Your task to perform on an android device: toggle notifications settings in the gmail app Image 0: 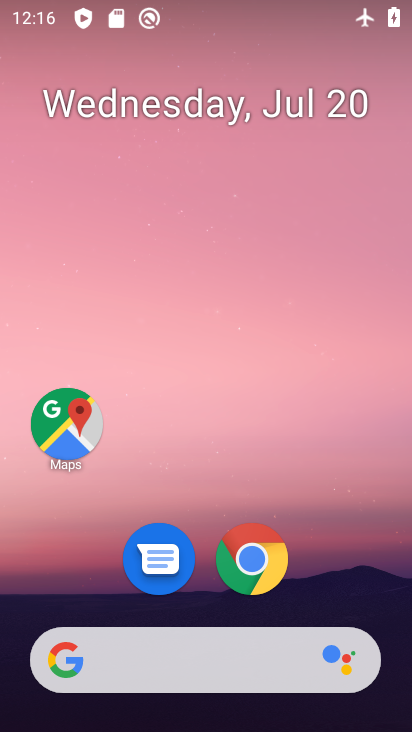
Step 0: drag from (356, 583) to (355, 158)
Your task to perform on an android device: toggle notifications settings in the gmail app Image 1: 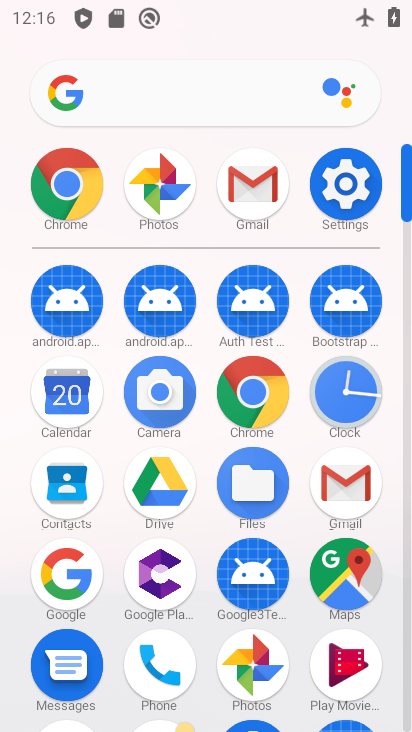
Step 1: click (360, 487)
Your task to perform on an android device: toggle notifications settings in the gmail app Image 2: 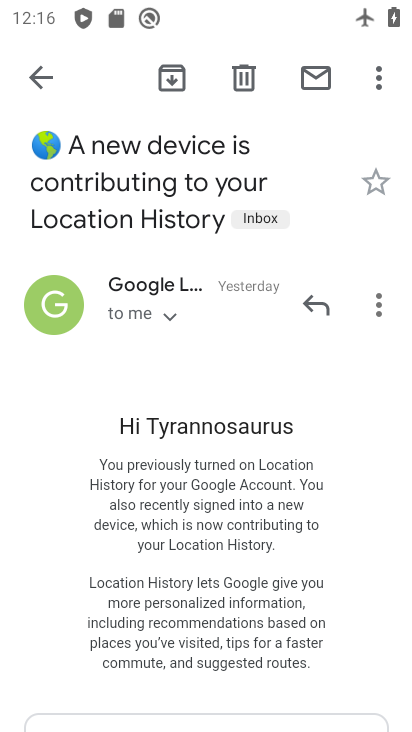
Step 2: press back button
Your task to perform on an android device: toggle notifications settings in the gmail app Image 3: 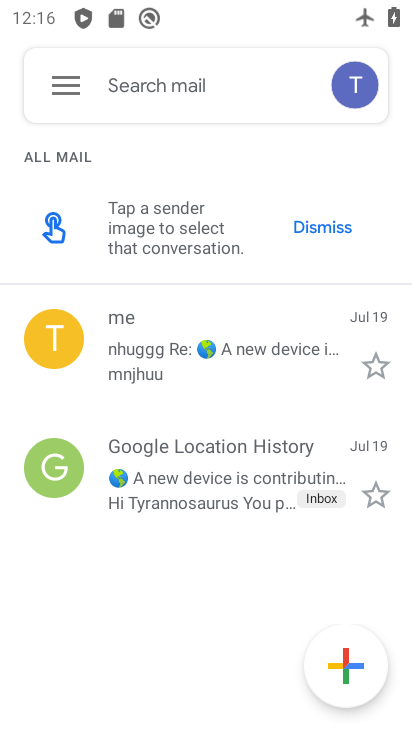
Step 3: click (74, 87)
Your task to perform on an android device: toggle notifications settings in the gmail app Image 4: 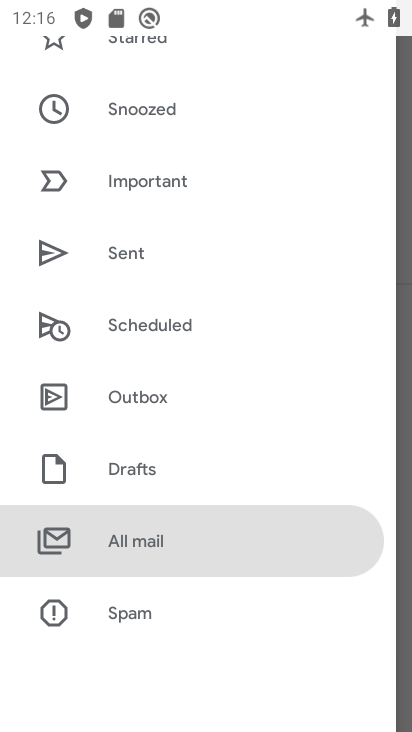
Step 4: drag from (317, 248) to (322, 340)
Your task to perform on an android device: toggle notifications settings in the gmail app Image 5: 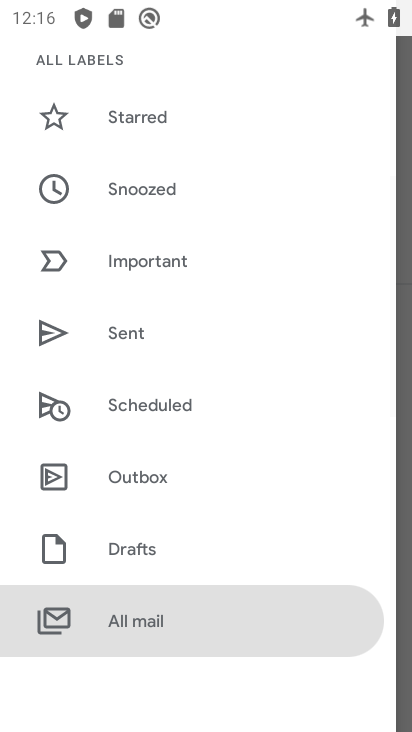
Step 5: drag from (323, 237) to (331, 375)
Your task to perform on an android device: toggle notifications settings in the gmail app Image 6: 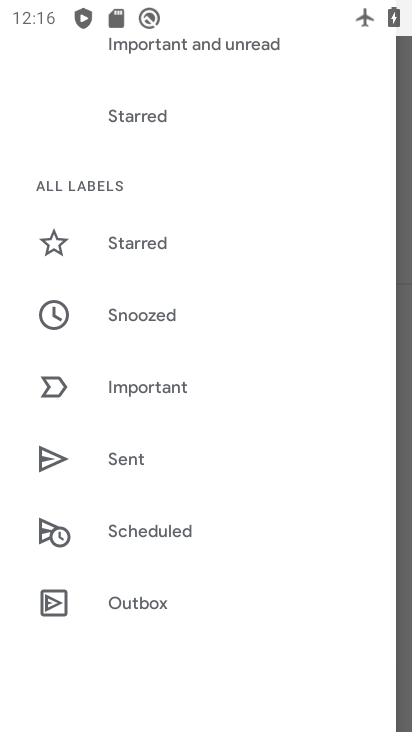
Step 6: drag from (319, 261) to (317, 409)
Your task to perform on an android device: toggle notifications settings in the gmail app Image 7: 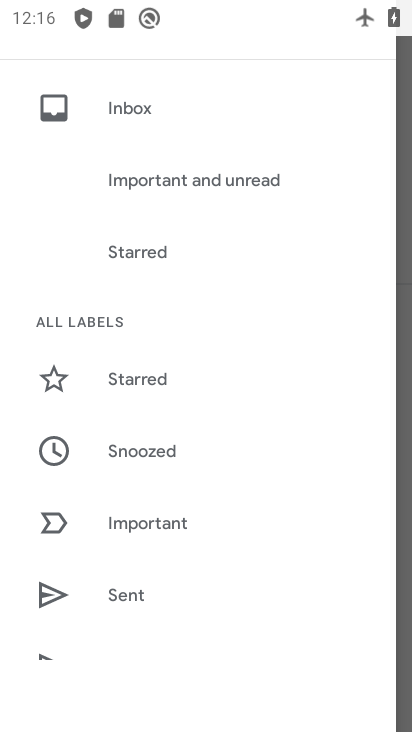
Step 7: drag from (306, 286) to (309, 385)
Your task to perform on an android device: toggle notifications settings in the gmail app Image 8: 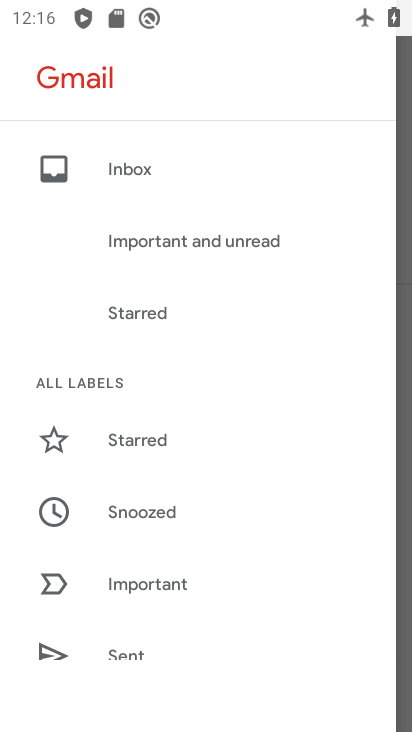
Step 8: drag from (313, 527) to (329, 424)
Your task to perform on an android device: toggle notifications settings in the gmail app Image 9: 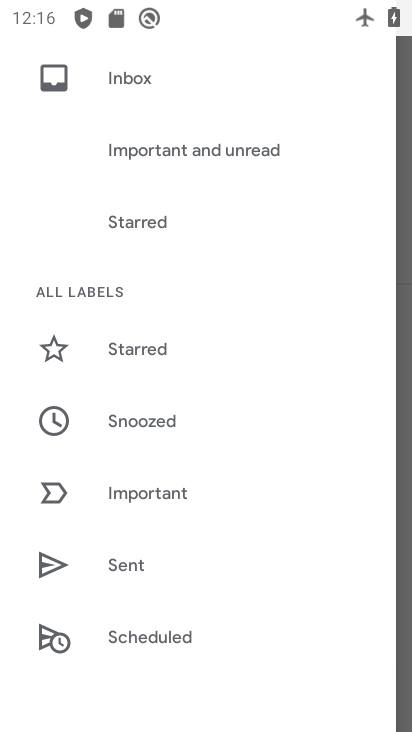
Step 9: drag from (312, 559) to (332, 414)
Your task to perform on an android device: toggle notifications settings in the gmail app Image 10: 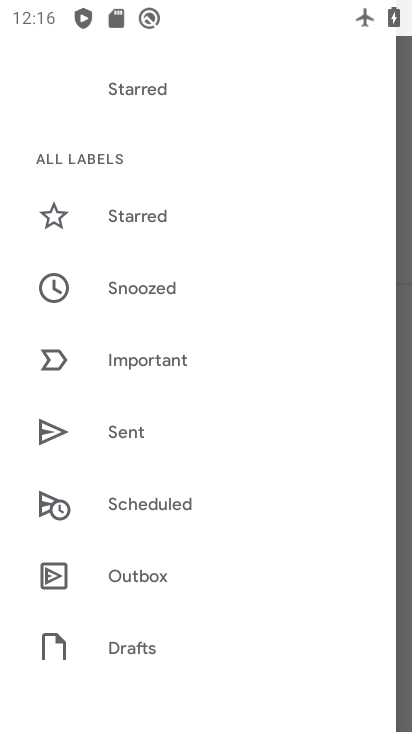
Step 10: drag from (312, 559) to (337, 376)
Your task to perform on an android device: toggle notifications settings in the gmail app Image 11: 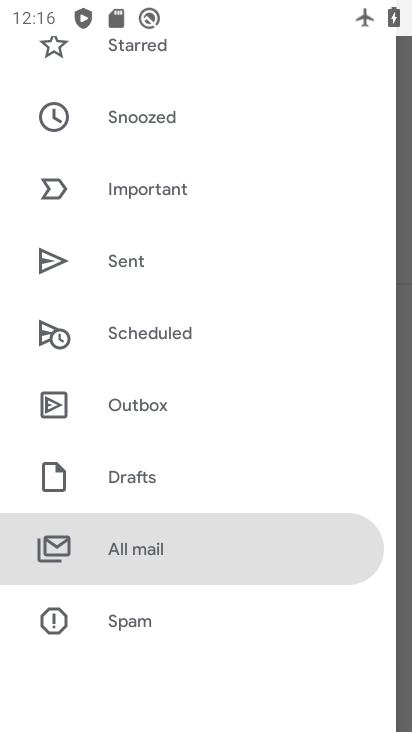
Step 11: drag from (309, 612) to (318, 422)
Your task to perform on an android device: toggle notifications settings in the gmail app Image 12: 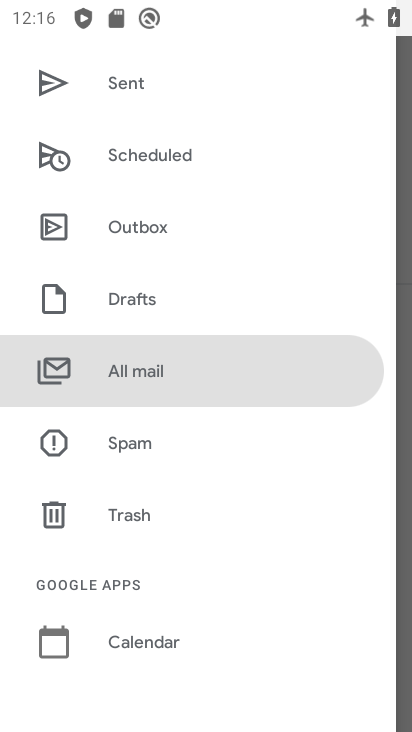
Step 12: drag from (296, 579) to (300, 447)
Your task to perform on an android device: toggle notifications settings in the gmail app Image 13: 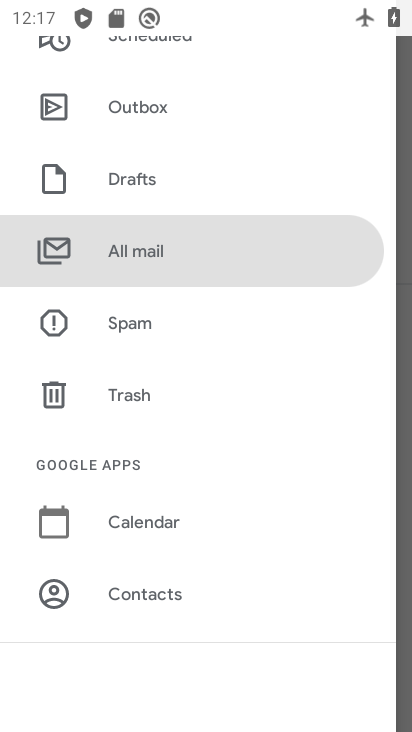
Step 13: drag from (288, 575) to (293, 443)
Your task to perform on an android device: toggle notifications settings in the gmail app Image 14: 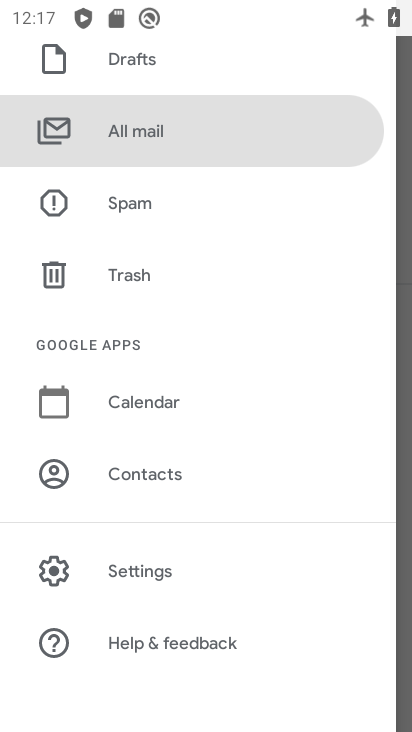
Step 14: click (245, 566)
Your task to perform on an android device: toggle notifications settings in the gmail app Image 15: 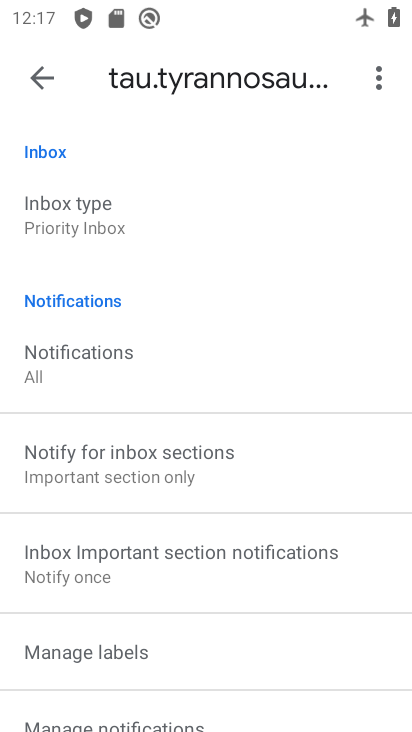
Step 15: drag from (311, 465) to (302, 359)
Your task to perform on an android device: toggle notifications settings in the gmail app Image 16: 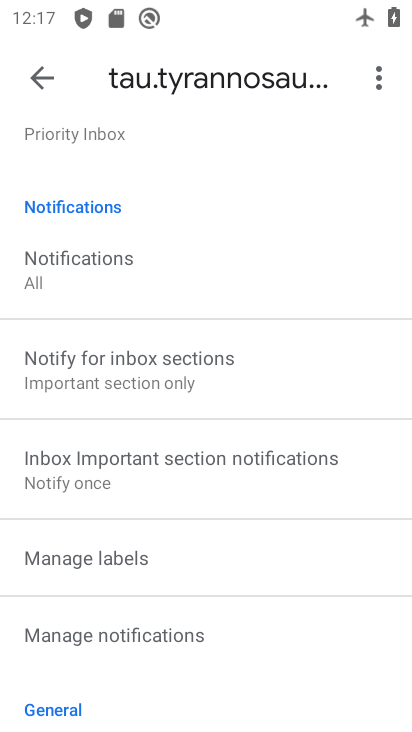
Step 16: drag from (295, 523) to (286, 425)
Your task to perform on an android device: toggle notifications settings in the gmail app Image 17: 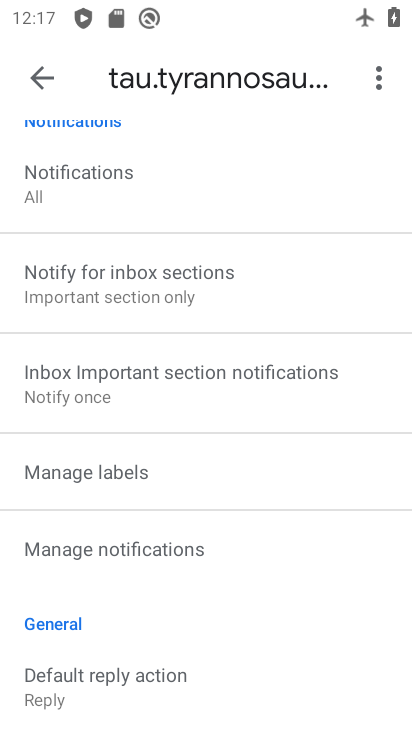
Step 17: click (260, 566)
Your task to perform on an android device: toggle notifications settings in the gmail app Image 18: 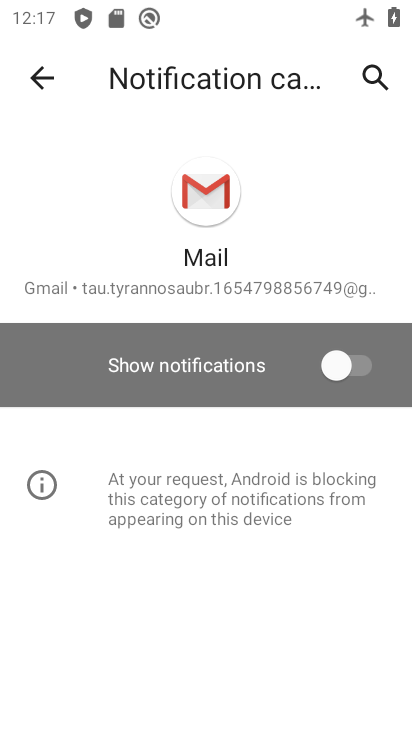
Step 18: click (334, 356)
Your task to perform on an android device: toggle notifications settings in the gmail app Image 19: 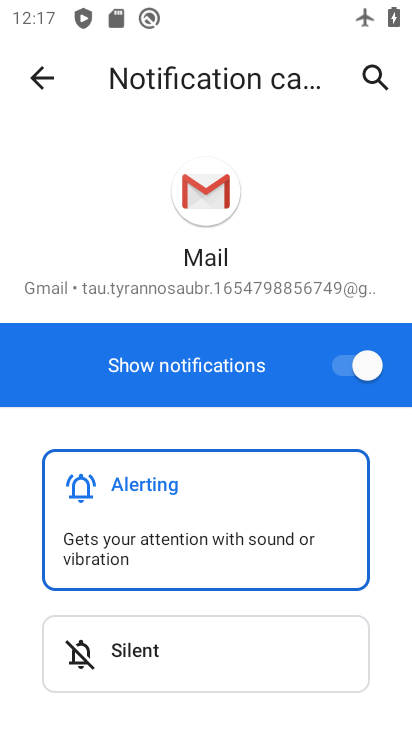
Step 19: task complete